Your task to perform on an android device: What's on my calendar tomorrow? Image 0: 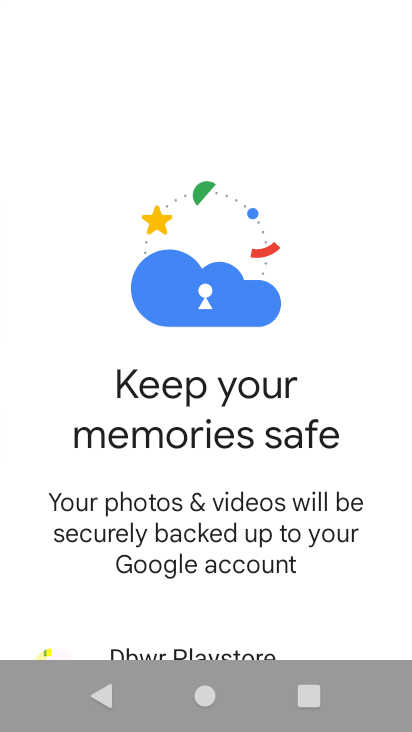
Step 0: press home button
Your task to perform on an android device: What's on my calendar tomorrow? Image 1: 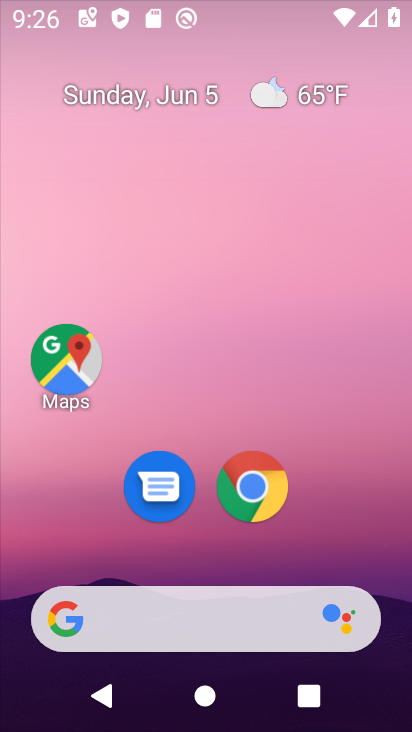
Step 1: drag from (326, 375) to (326, 202)
Your task to perform on an android device: What's on my calendar tomorrow? Image 2: 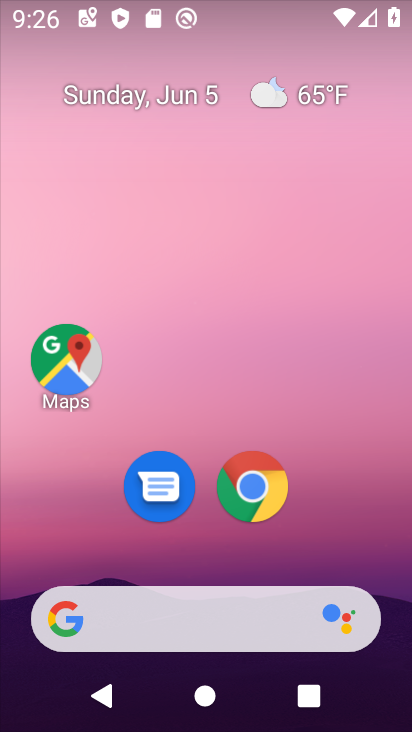
Step 2: drag from (337, 557) to (341, 232)
Your task to perform on an android device: What's on my calendar tomorrow? Image 3: 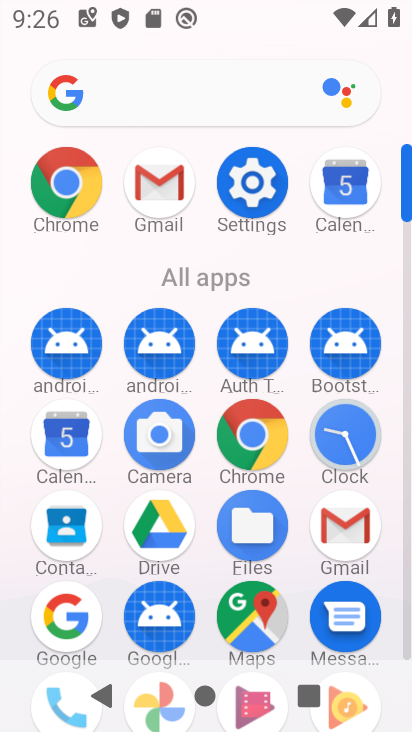
Step 3: click (65, 442)
Your task to perform on an android device: What's on my calendar tomorrow? Image 4: 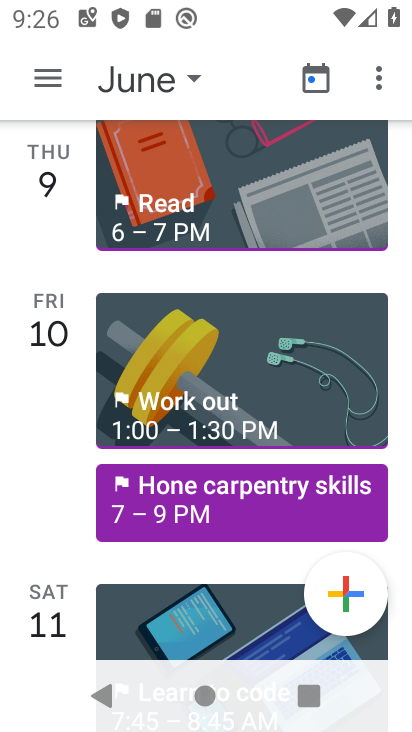
Step 4: click (123, 78)
Your task to perform on an android device: What's on my calendar tomorrow? Image 5: 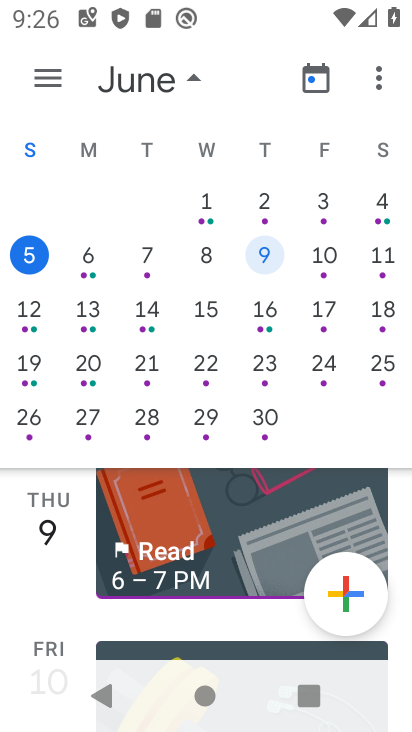
Step 5: click (87, 261)
Your task to perform on an android device: What's on my calendar tomorrow? Image 6: 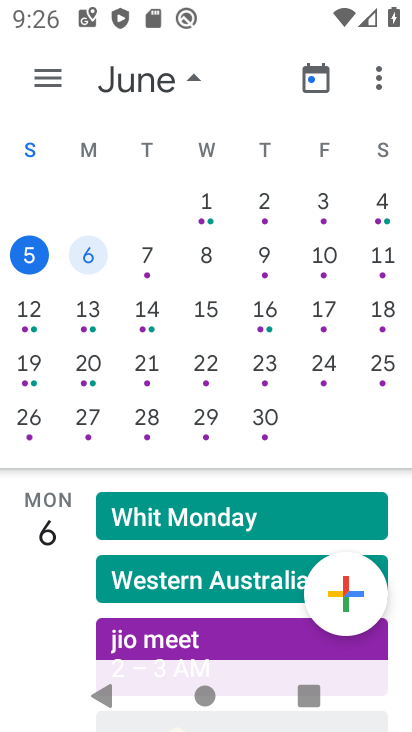
Step 6: task complete